Your task to perform on an android device: Open Yahoo.com Image 0: 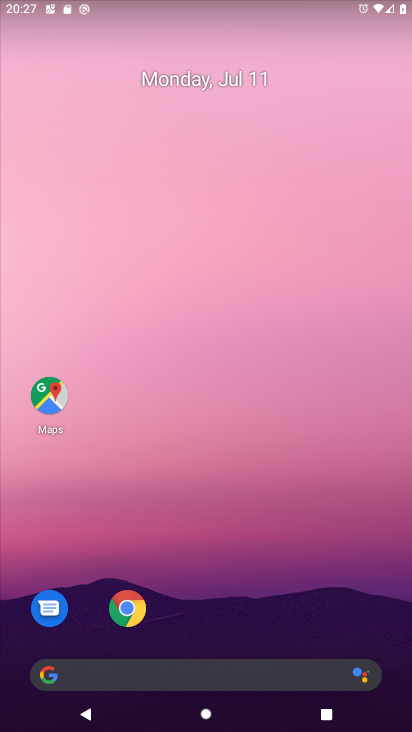
Step 0: click (114, 603)
Your task to perform on an android device: Open Yahoo.com Image 1: 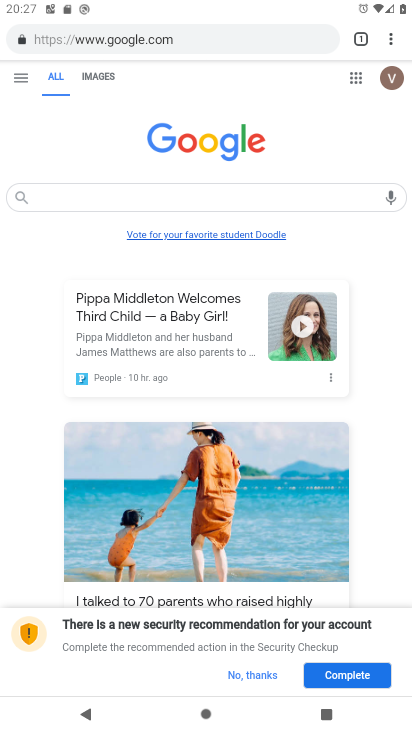
Step 1: click (228, 44)
Your task to perform on an android device: Open Yahoo.com Image 2: 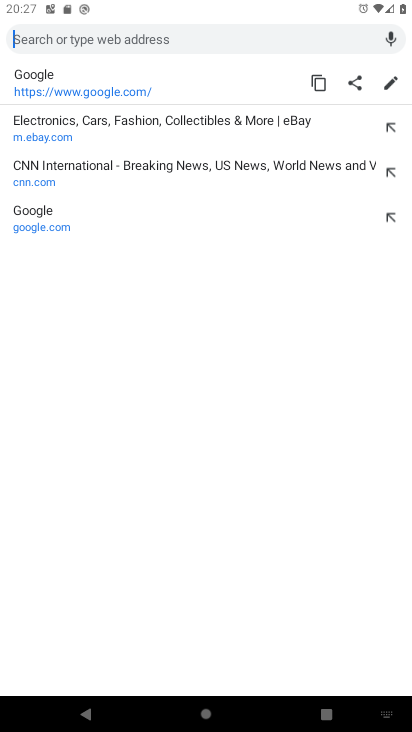
Step 2: type "yahoo.com"
Your task to perform on an android device: Open Yahoo.com Image 3: 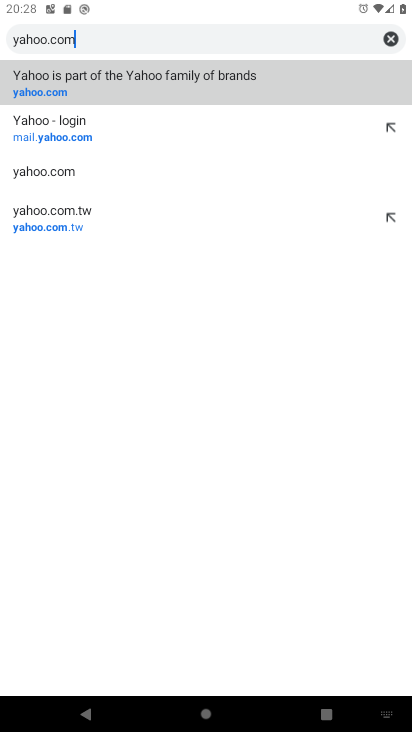
Step 3: click (79, 109)
Your task to perform on an android device: Open Yahoo.com Image 4: 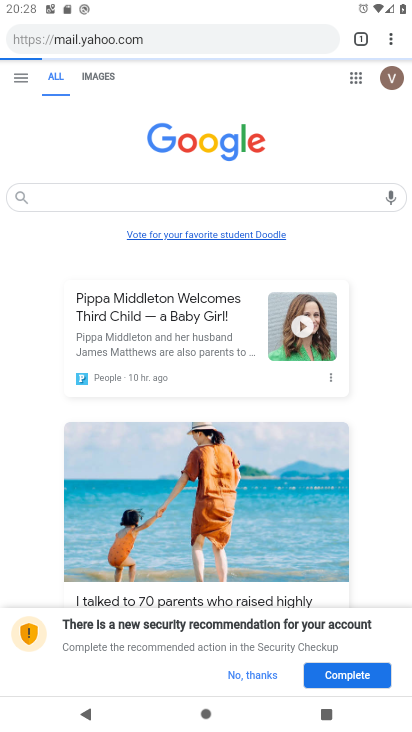
Step 4: task complete